Your task to perform on an android device: Go to Yahoo.com Image 0: 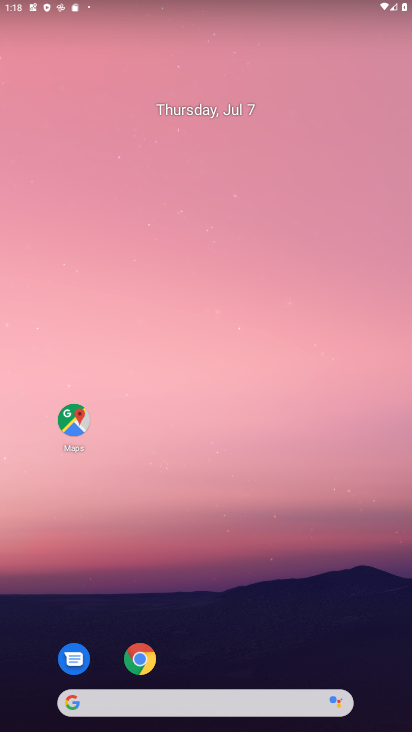
Step 0: click (140, 659)
Your task to perform on an android device: Go to Yahoo.com Image 1: 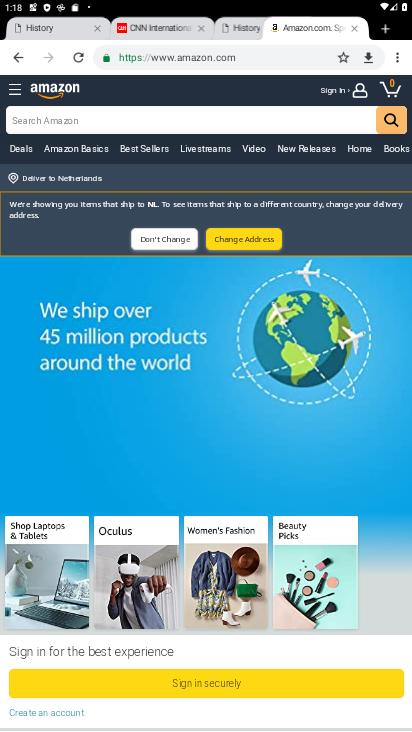
Step 1: click (402, 54)
Your task to perform on an android device: Go to Yahoo.com Image 2: 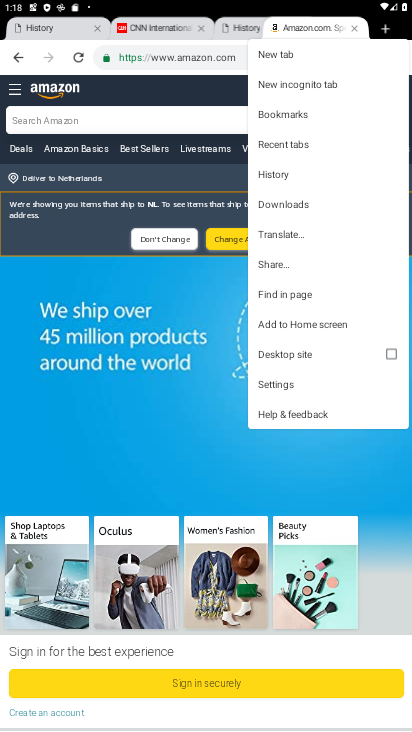
Step 2: click (287, 46)
Your task to perform on an android device: Go to Yahoo.com Image 3: 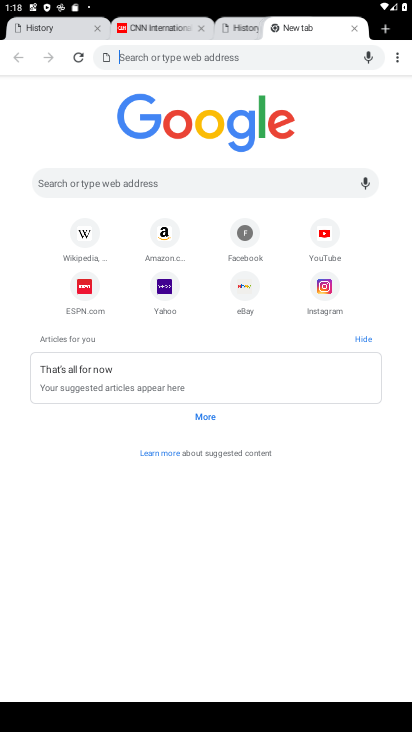
Step 3: click (162, 290)
Your task to perform on an android device: Go to Yahoo.com Image 4: 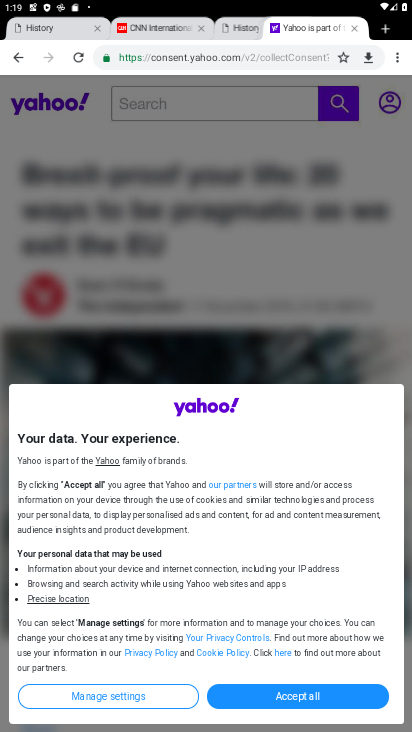
Step 4: click (242, 702)
Your task to perform on an android device: Go to Yahoo.com Image 5: 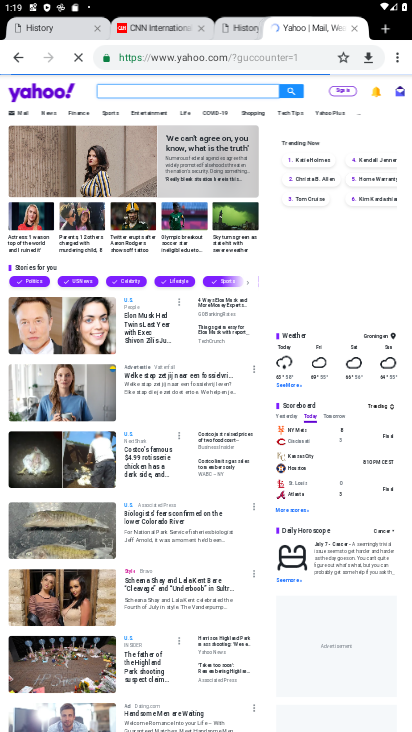
Step 5: task complete